Your task to perform on an android device: all mails in gmail Image 0: 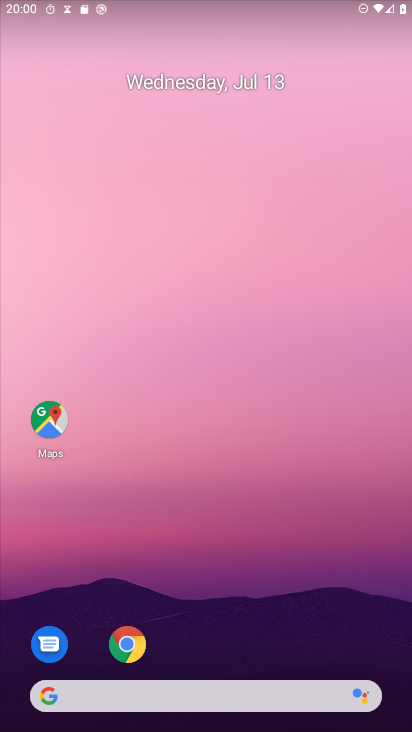
Step 0: drag from (201, 647) to (208, 1)
Your task to perform on an android device: all mails in gmail Image 1: 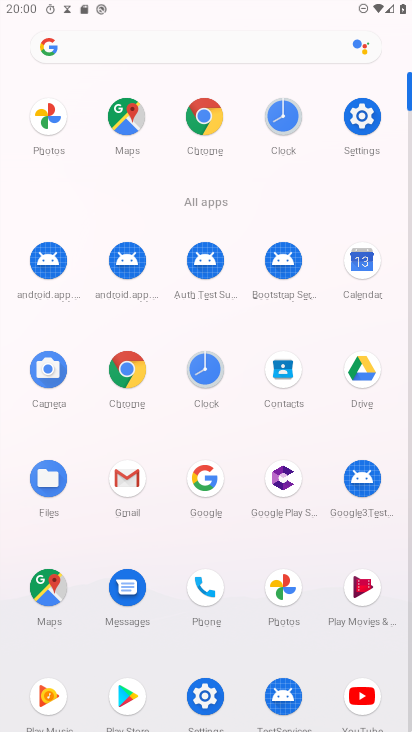
Step 1: click (126, 480)
Your task to perform on an android device: all mails in gmail Image 2: 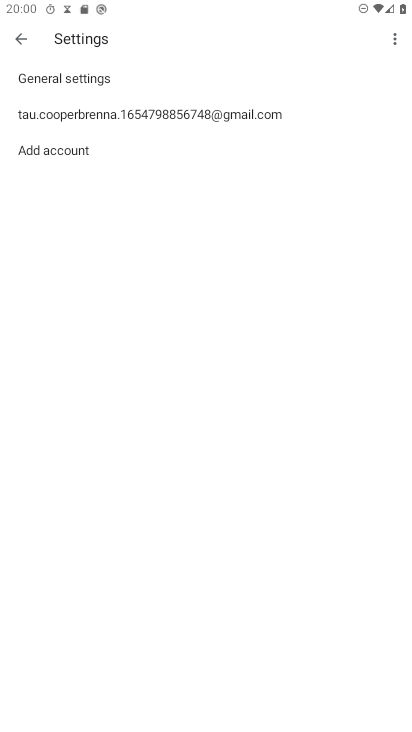
Step 2: click (16, 25)
Your task to perform on an android device: all mails in gmail Image 3: 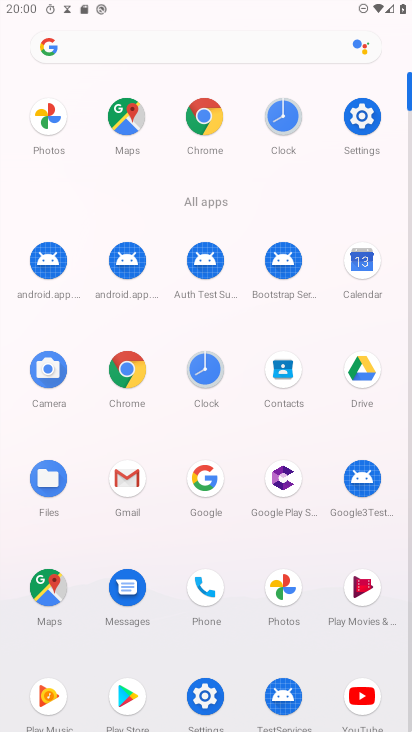
Step 3: click (126, 472)
Your task to perform on an android device: all mails in gmail Image 4: 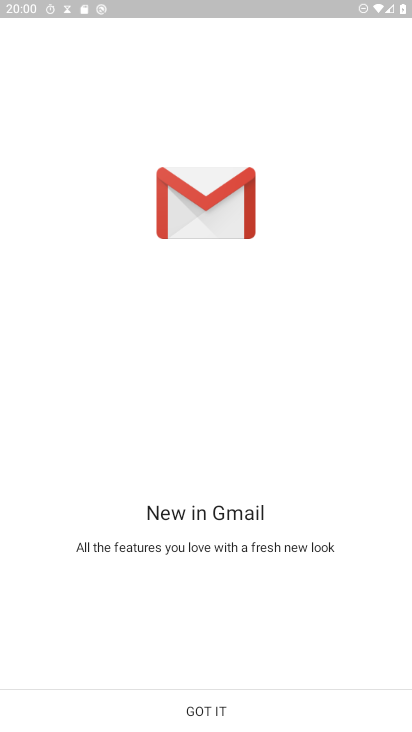
Step 4: click (209, 714)
Your task to perform on an android device: all mails in gmail Image 5: 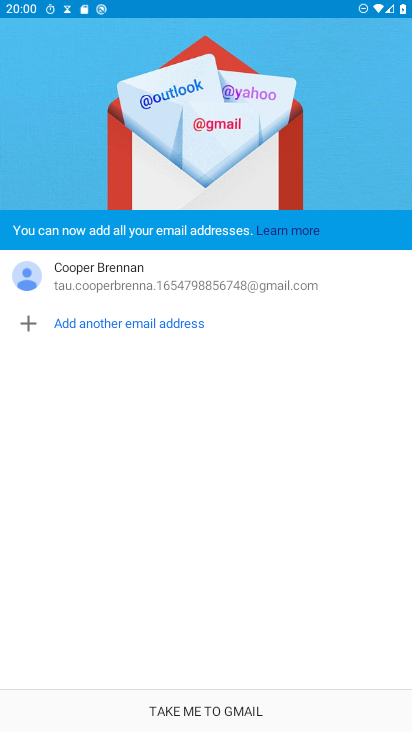
Step 5: click (209, 714)
Your task to perform on an android device: all mails in gmail Image 6: 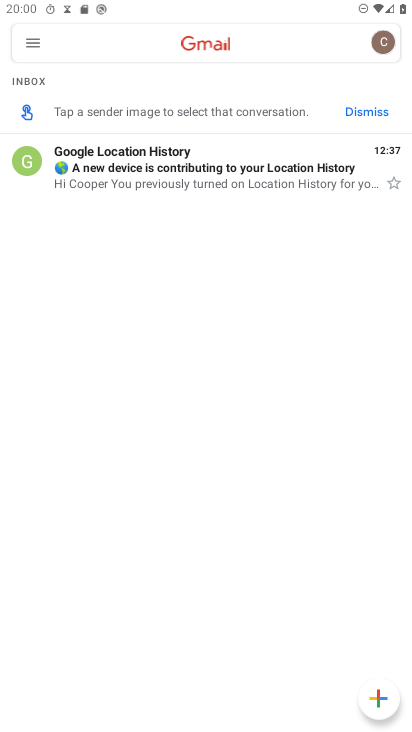
Step 6: click (34, 38)
Your task to perform on an android device: all mails in gmail Image 7: 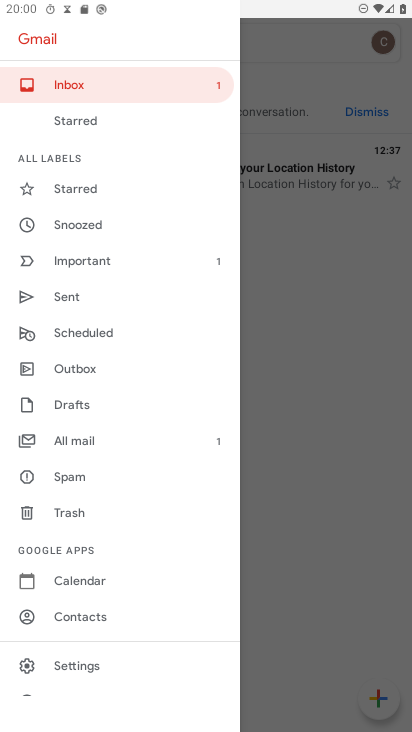
Step 7: click (101, 436)
Your task to perform on an android device: all mails in gmail Image 8: 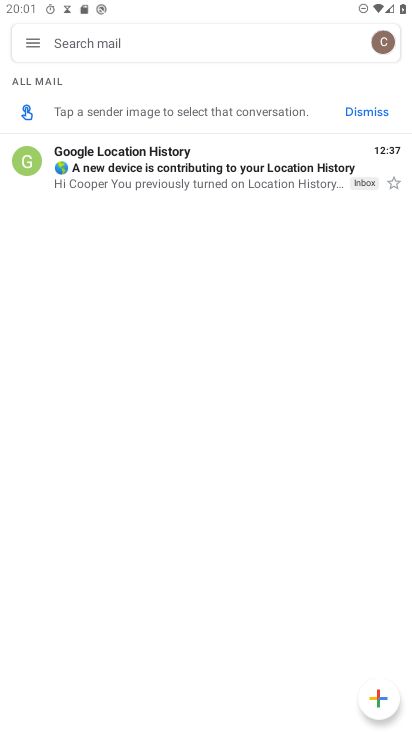
Step 8: task complete